Your task to perform on an android device: remove spam from my inbox in the gmail app Image 0: 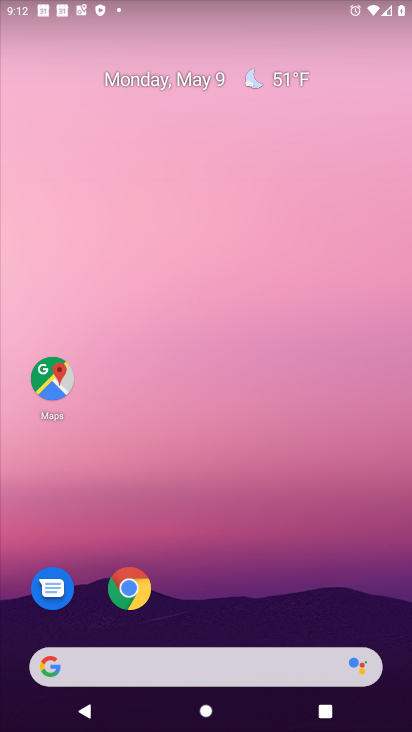
Step 0: drag from (209, 606) to (183, 103)
Your task to perform on an android device: remove spam from my inbox in the gmail app Image 1: 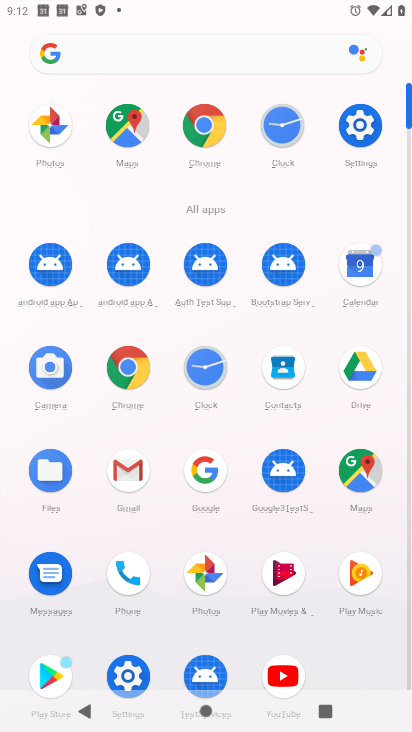
Step 1: click (140, 472)
Your task to perform on an android device: remove spam from my inbox in the gmail app Image 2: 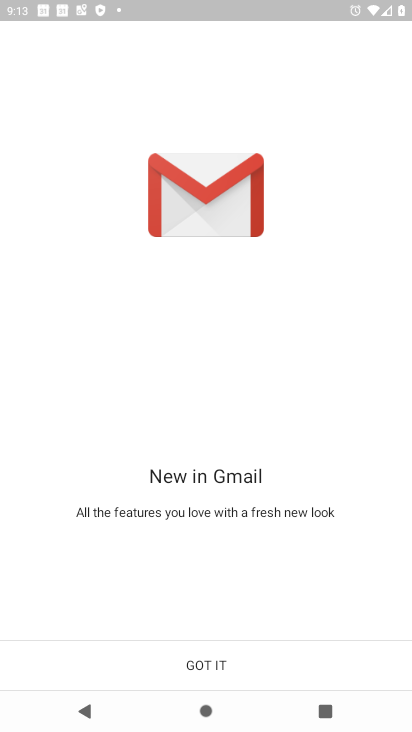
Step 2: click (193, 669)
Your task to perform on an android device: remove spam from my inbox in the gmail app Image 3: 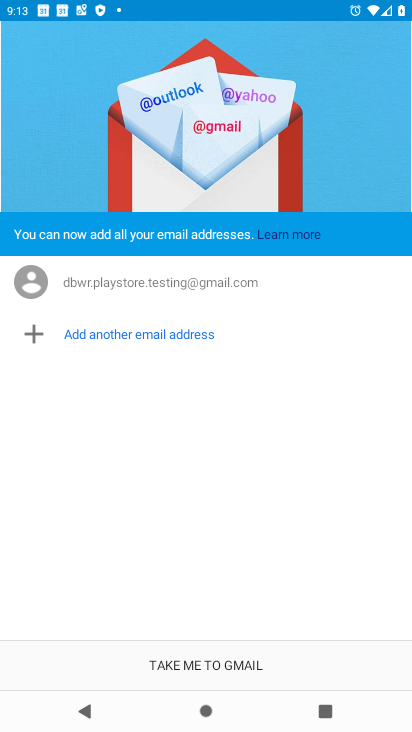
Step 3: click (146, 274)
Your task to perform on an android device: remove spam from my inbox in the gmail app Image 4: 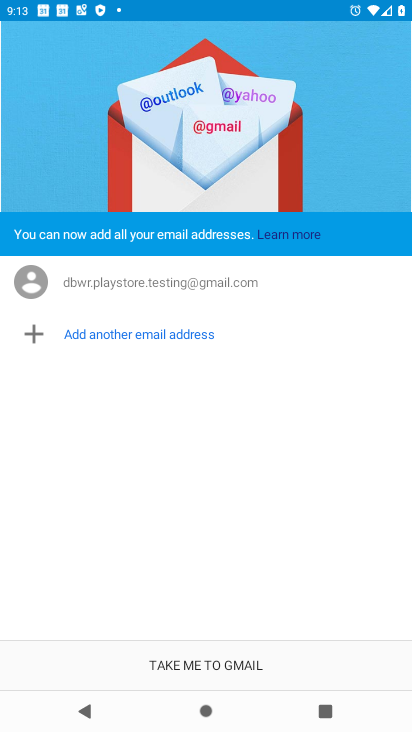
Step 4: click (180, 656)
Your task to perform on an android device: remove spam from my inbox in the gmail app Image 5: 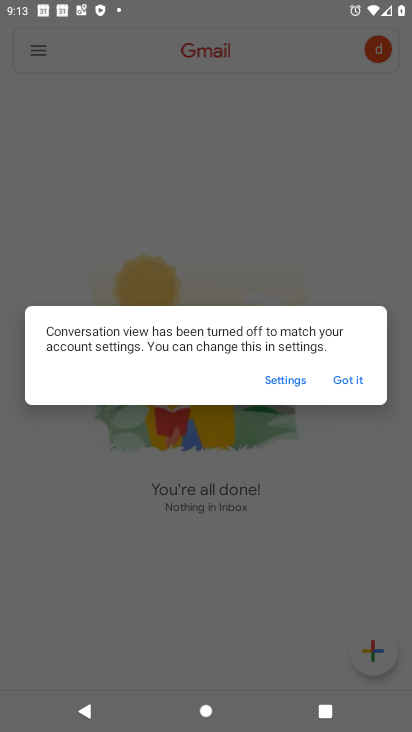
Step 5: click (338, 378)
Your task to perform on an android device: remove spam from my inbox in the gmail app Image 6: 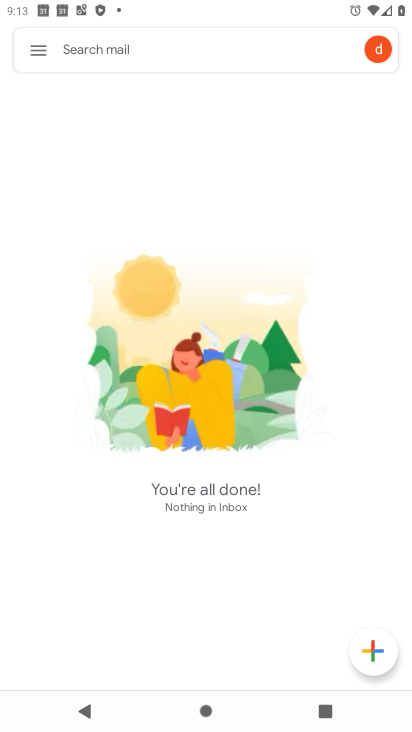
Step 6: click (51, 65)
Your task to perform on an android device: remove spam from my inbox in the gmail app Image 7: 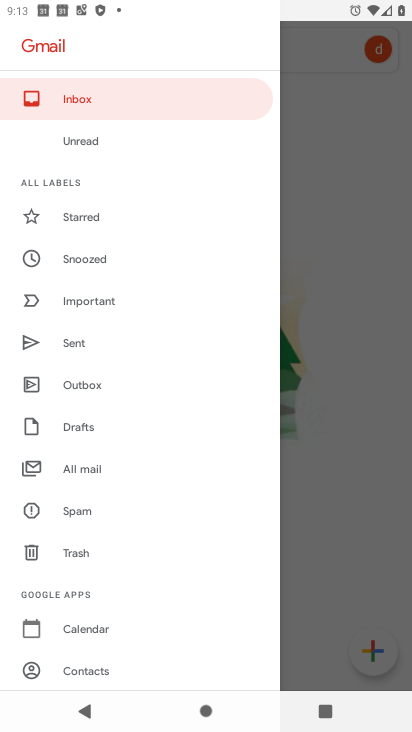
Step 7: click (83, 511)
Your task to perform on an android device: remove spam from my inbox in the gmail app Image 8: 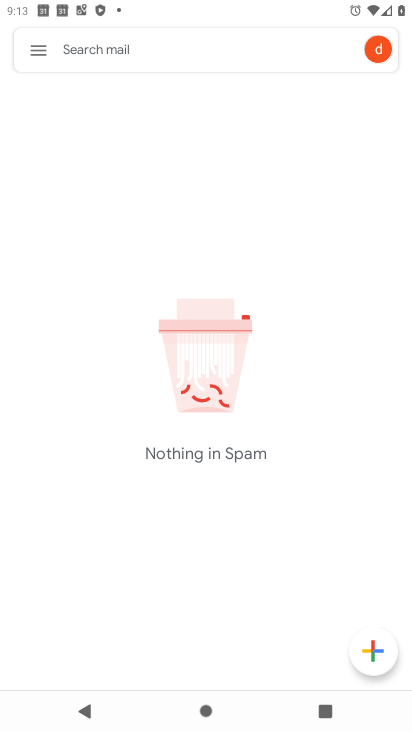
Step 8: task complete